Your task to perform on an android device: turn on wifi Image 0: 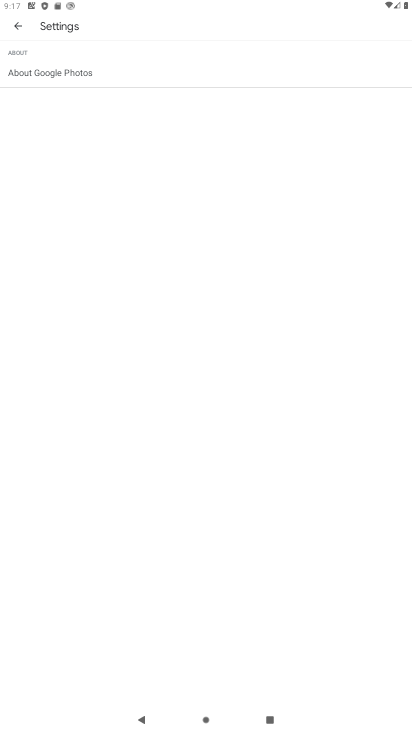
Step 0: press home button
Your task to perform on an android device: turn on wifi Image 1: 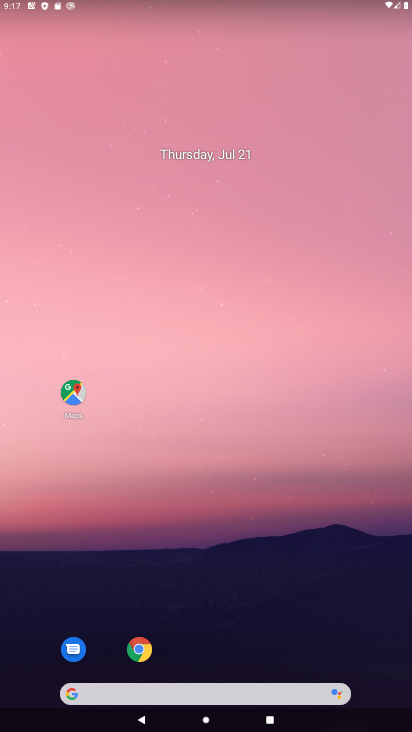
Step 1: drag from (198, 647) to (240, 176)
Your task to perform on an android device: turn on wifi Image 2: 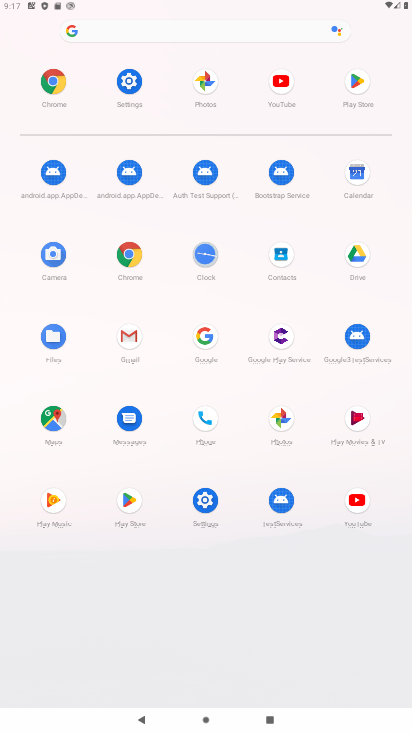
Step 2: click (198, 506)
Your task to perform on an android device: turn on wifi Image 3: 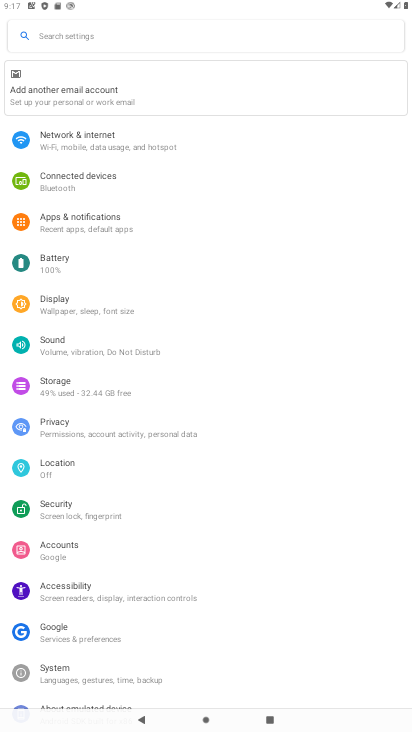
Step 3: click (114, 140)
Your task to perform on an android device: turn on wifi Image 4: 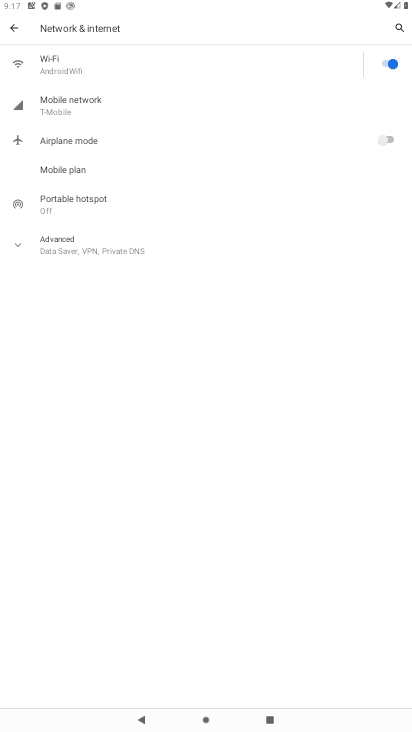
Step 4: task complete